Your task to perform on an android device: all mails in gmail Image 0: 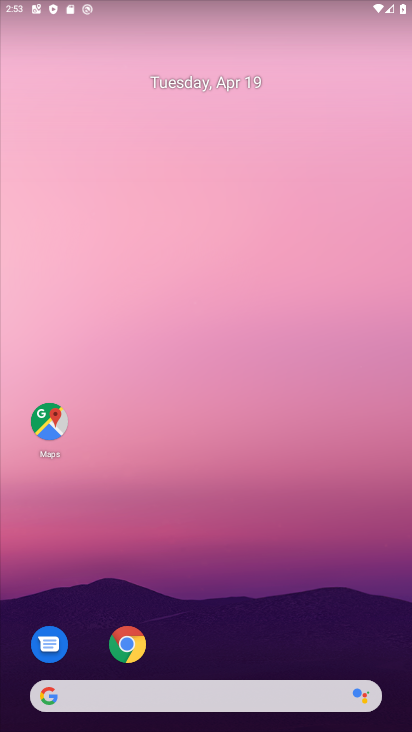
Step 0: drag from (286, 607) to (229, 150)
Your task to perform on an android device: all mails in gmail Image 1: 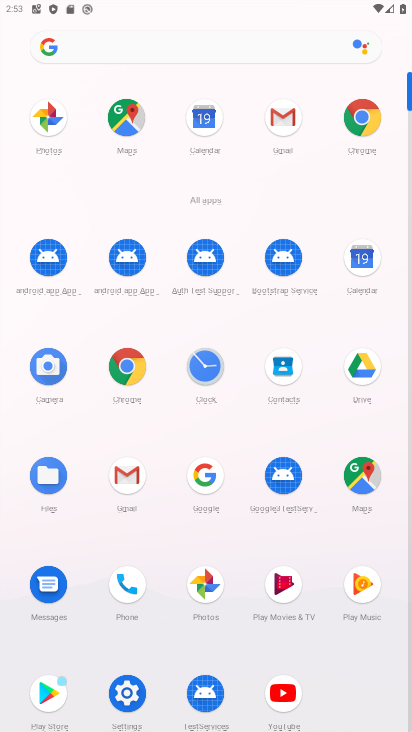
Step 1: click (282, 120)
Your task to perform on an android device: all mails in gmail Image 2: 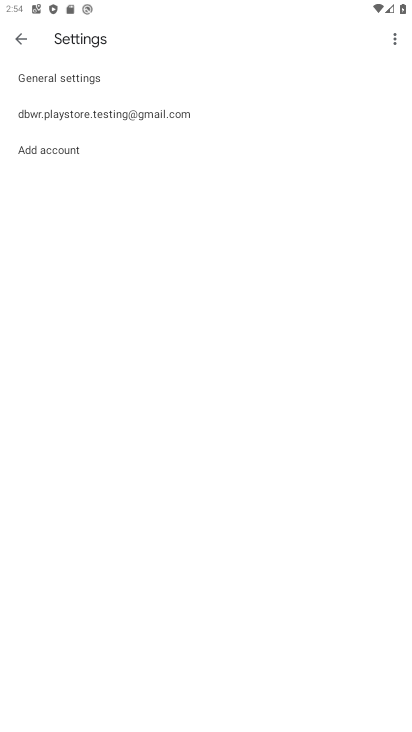
Step 2: click (20, 36)
Your task to perform on an android device: all mails in gmail Image 3: 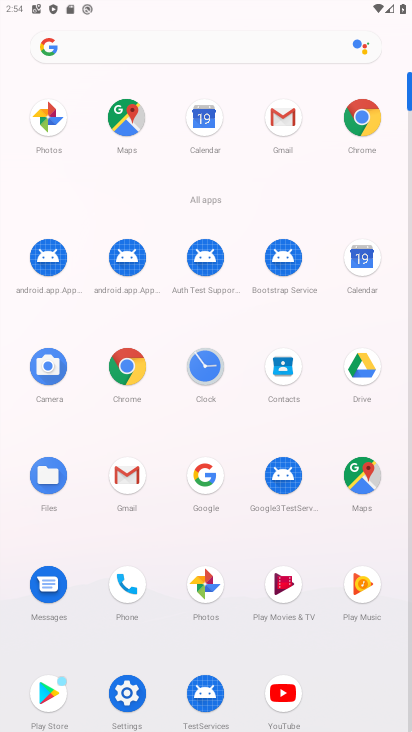
Step 3: click (132, 469)
Your task to perform on an android device: all mails in gmail Image 4: 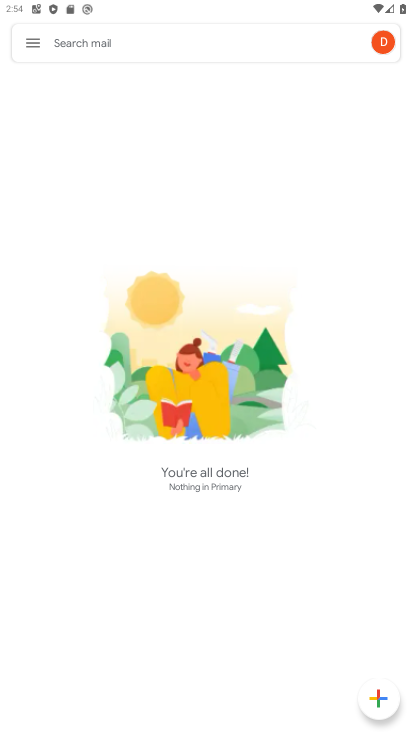
Step 4: click (30, 44)
Your task to perform on an android device: all mails in gmail Image 5: 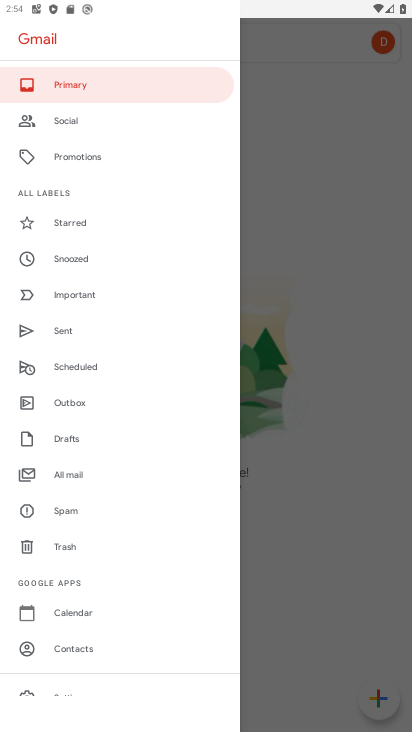
Step 5: click (72, 474)
Your task to perform on an android device: all mails in gmail Image 6: 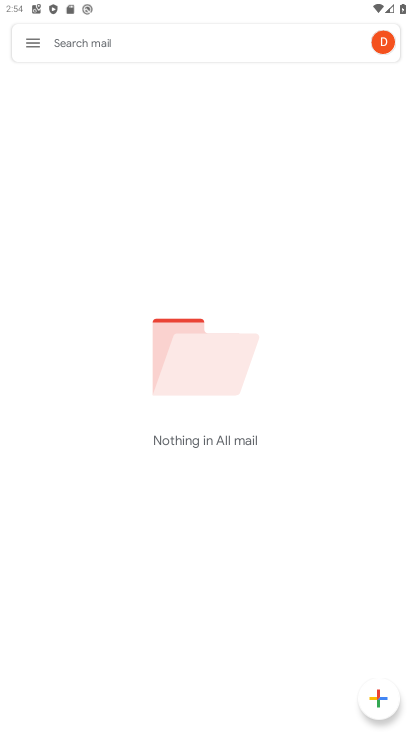
Step 6: task complete